Your task to perform on an android device: Clear the shopping cart on walmart.com. Search for razer huntsman on walmart.com, select the first entry, and add it to the cart. Image 0: 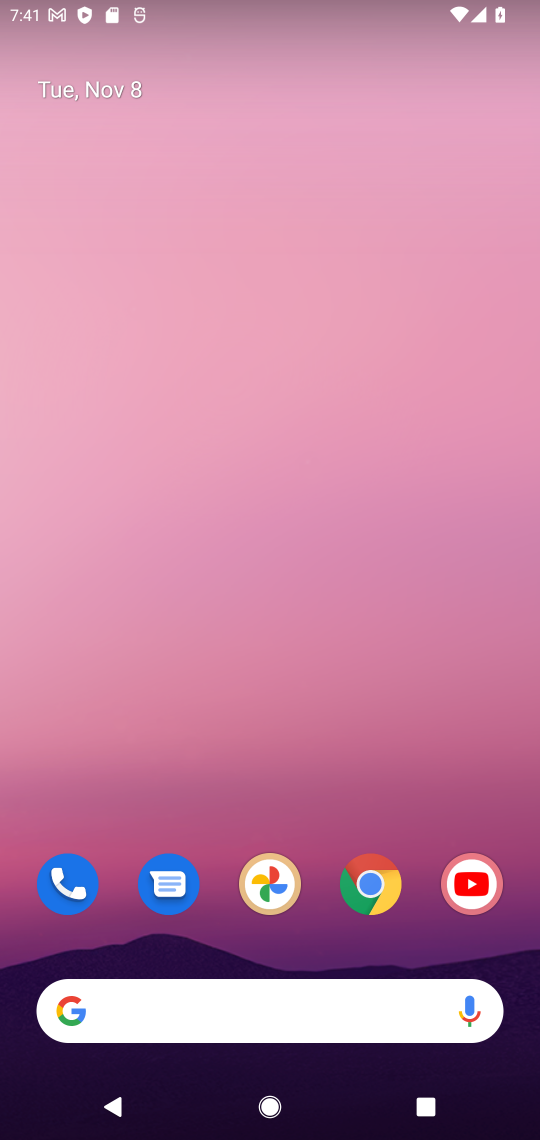
Step 0: drag from (309, 1046) to (304, 22)
Your task to perform on an android device: Clear the shopping cart on walmart.com. Search for razer huntsman on walmart.com, select the first entry, and add it to the cart. Image 1: 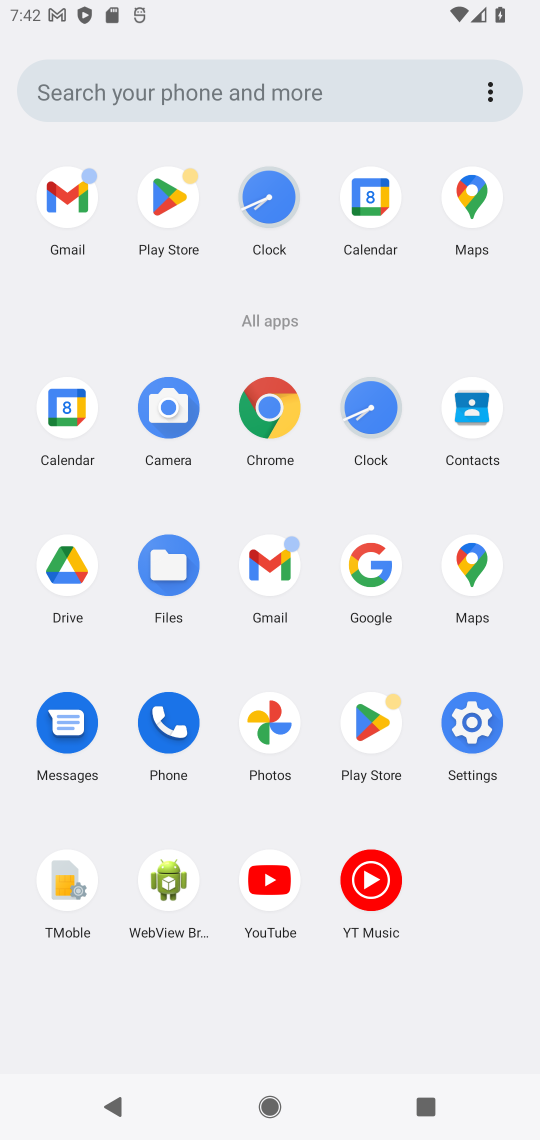
Step 1: click (363, 578)
Your task to perform on an android device: Clear the shopping cart on walmart.com. Search for razer huntsman on walmart.com, select the first entry, and add it to the cart. Image 2: 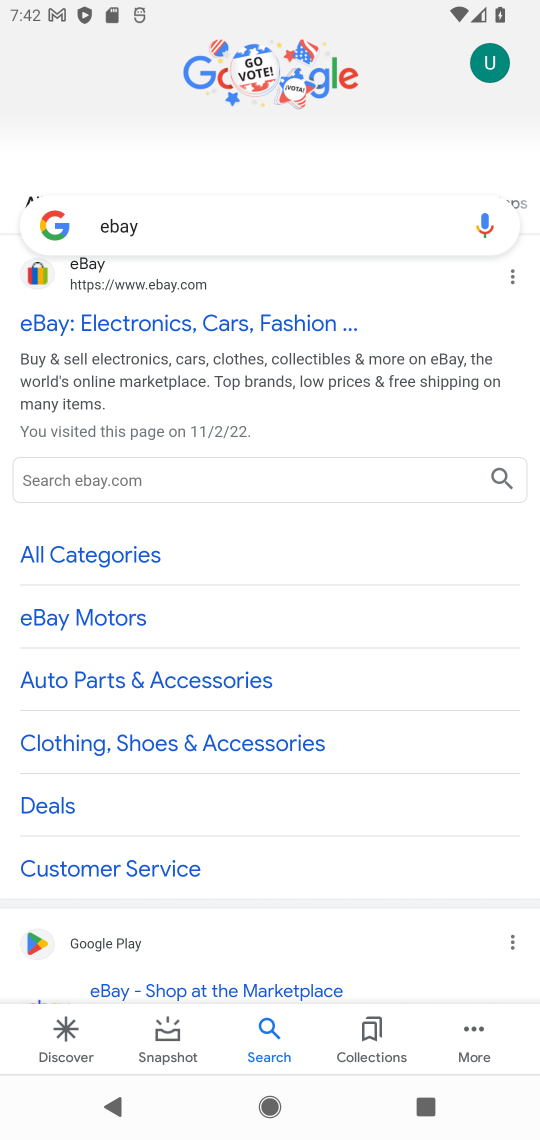
Step 2: click (298, 225)
Your task to perform on an android device: Clear the shopping cart on walmart.com. Search for razer huntsman on walmart.com, select the first entry, and add it to the cart. Image 3: 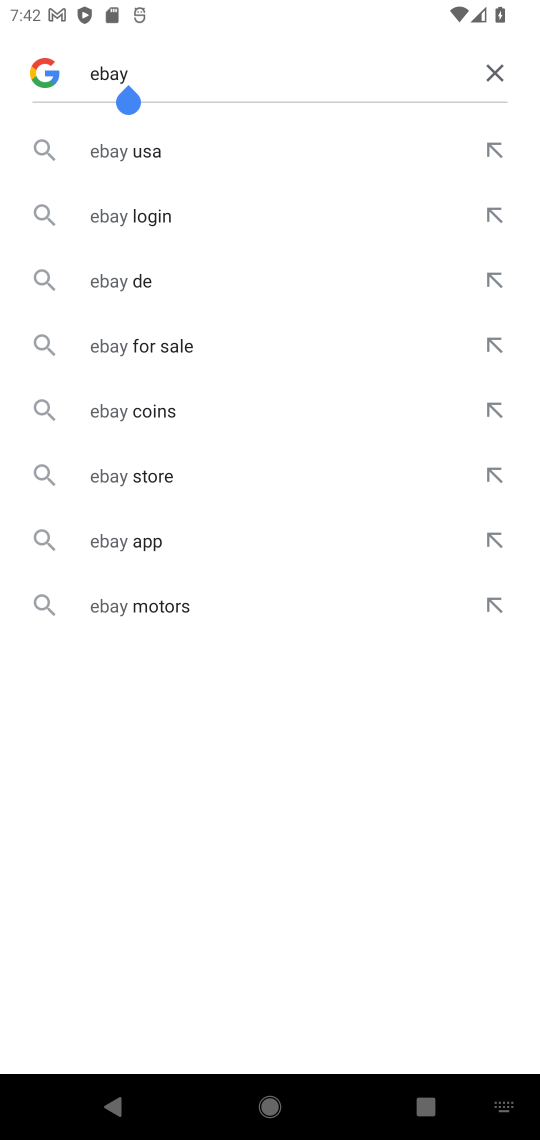
Step 3: click (494, 91)
Your task to perform on an android device: Clear the shopping cart on walmart.com. Search for razer huntsman on walmart.com, select the first entry, and add it to the cart. Image 4: 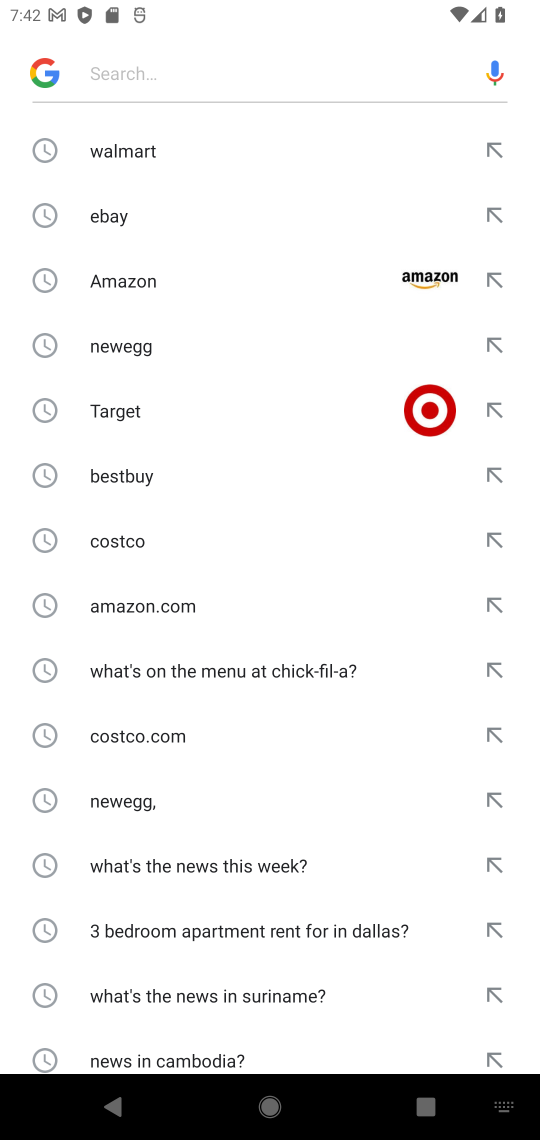
Step 4: click (236, 156)
Your task to perform on an android device: Clear the shopping cart on walmart.com. Search for razer huntsman on walmart.com, select the first entry, and add it to the cart. Image 5: 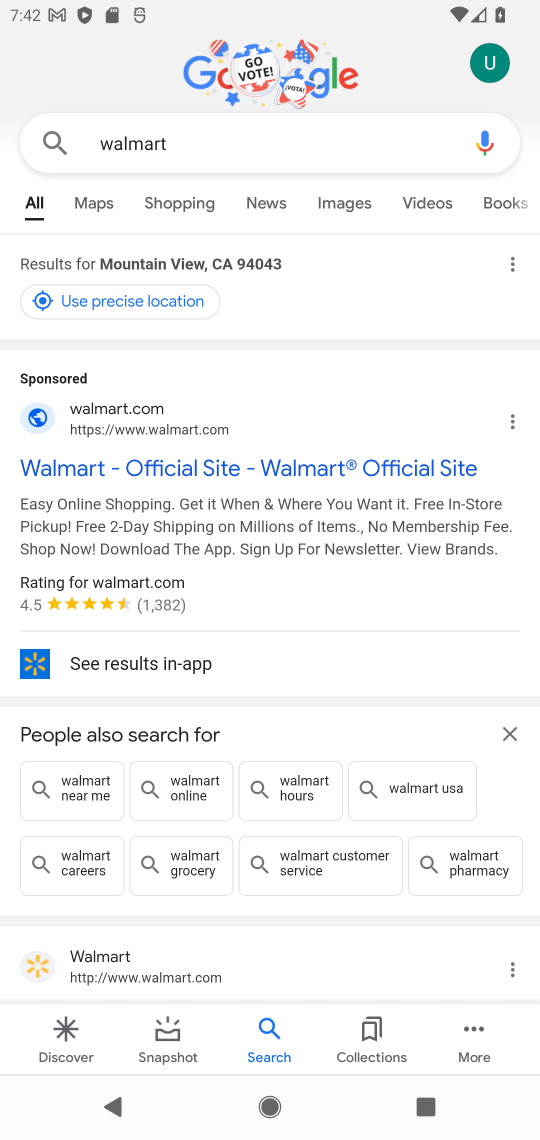
Step 5: click (163, 458)
Your task to perform on an android device: Clear the shopping cart on walmart.com. Search for razer huntsman on walmart.com, select the first entry, and add it to the cart. Image 6: 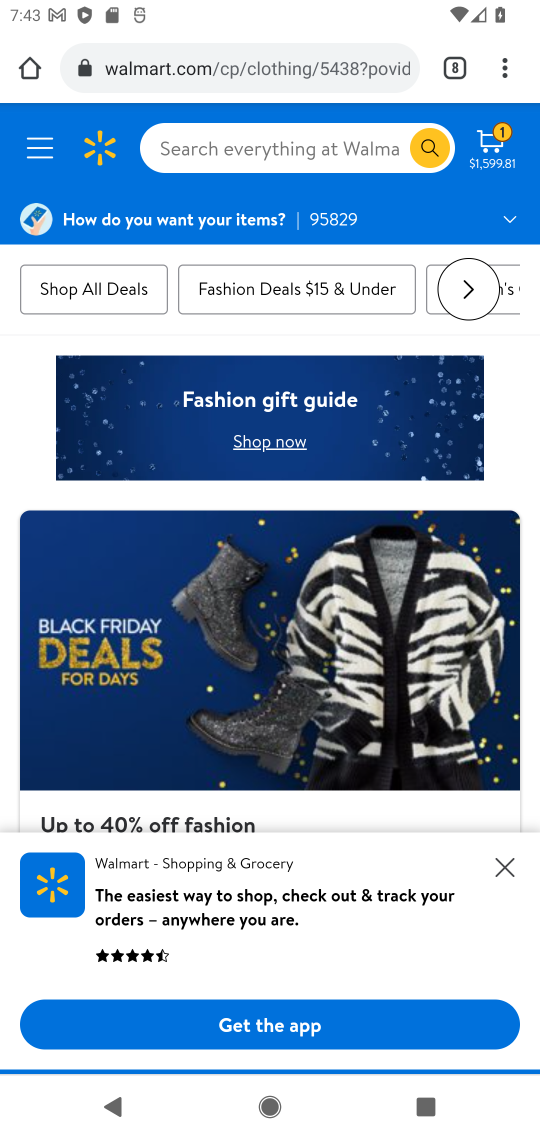
Step 6: click (206, 144)
Your task to perform on an android device: Clear the shopping cart on walmart.com. Search for razer huntsman on walmart.com, select the first entry, and add it to the cart. Image 7: 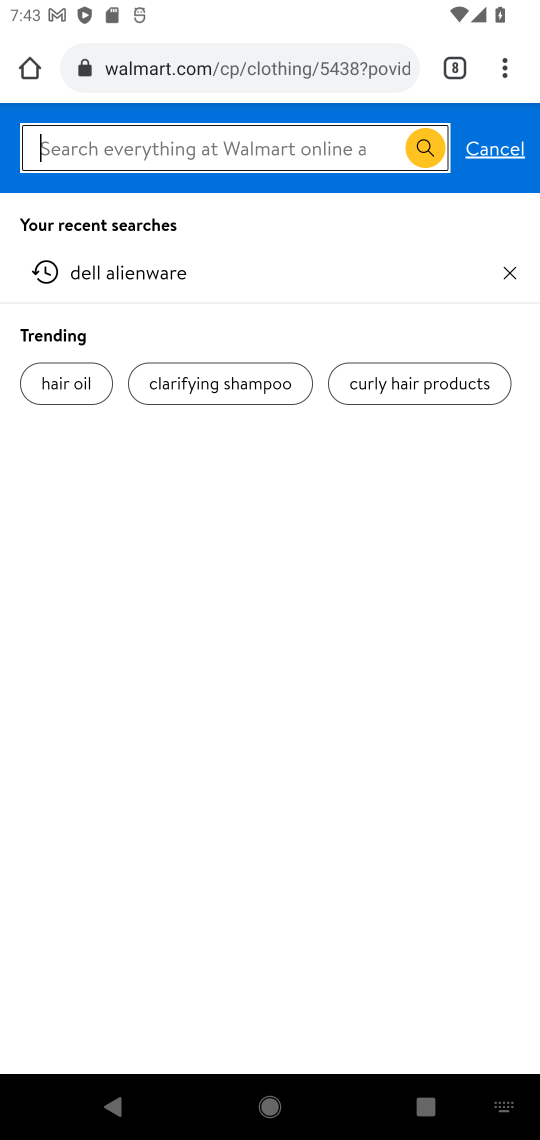
Step 7: click (487, 152)
Your task to perform on an android device: Clear the shopping cart on walmart.com. Search for razer huntsman on walmart.com, select the first entry, and add it to the cart. Image 8: 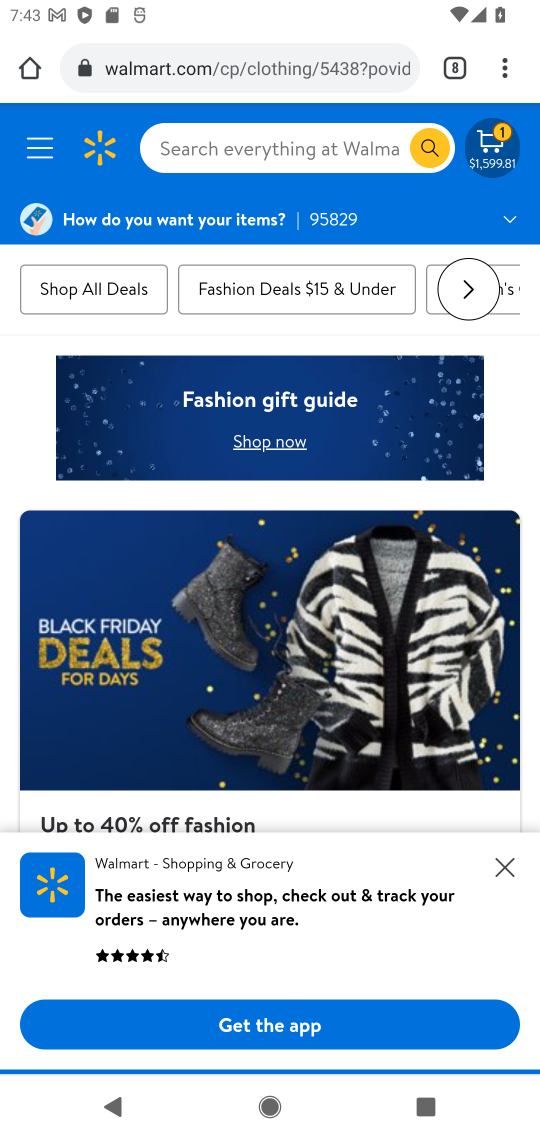
Step 8: click (487, 152)
Your task to perform on an android device: Clear the shopping cart on walmart.com. Search for razer huntsman on walmart.com, select the first entry, and add it to the cart. Image 9: 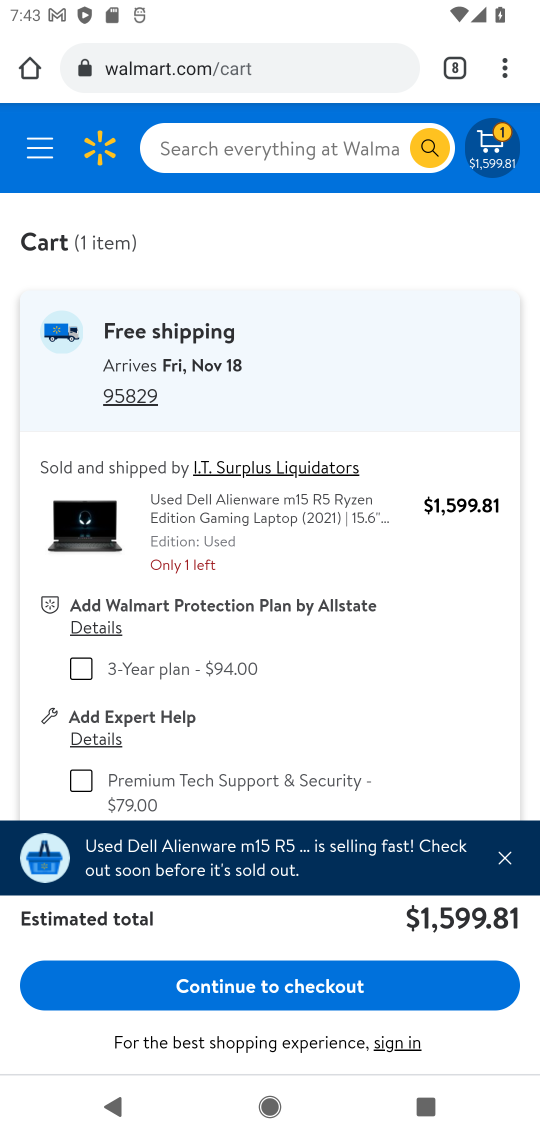
Step 9: drag from (446, 672) to (434, 311)
Your task to perform on an android device: Clear the shopping cart on walmart.com. Search for razer huntsman on walmart.com, select the first entry, and add it to the cart. Image 10: 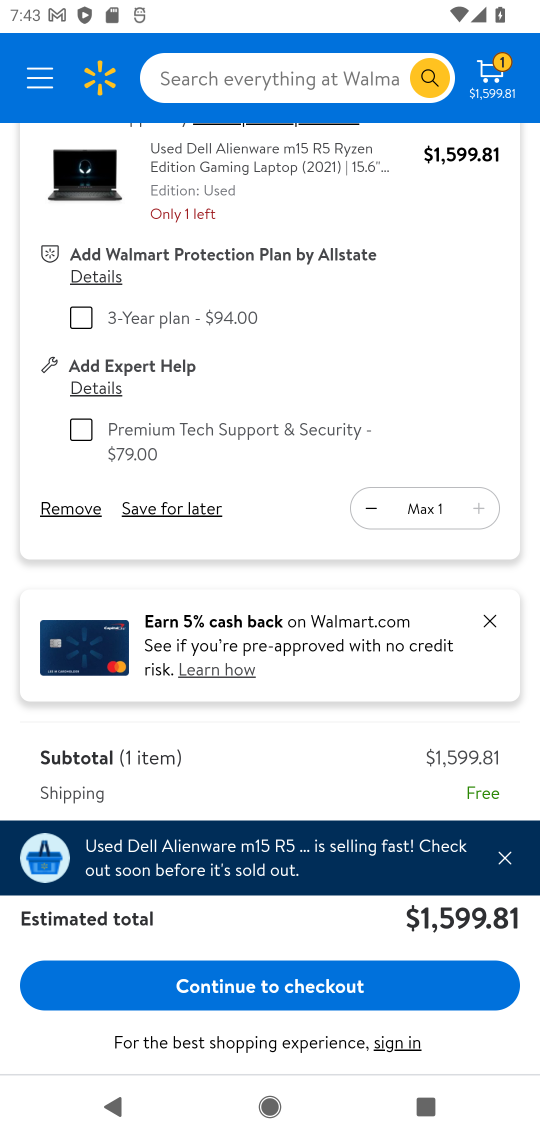
Step 10: drag from (391, 694) to (348, 180)
Your task to perform on an android device: Clear the shopping cart on walmart.com. Search for razer huntsman on walmart.com, select the first entry, and add it to the cart. Image 11: 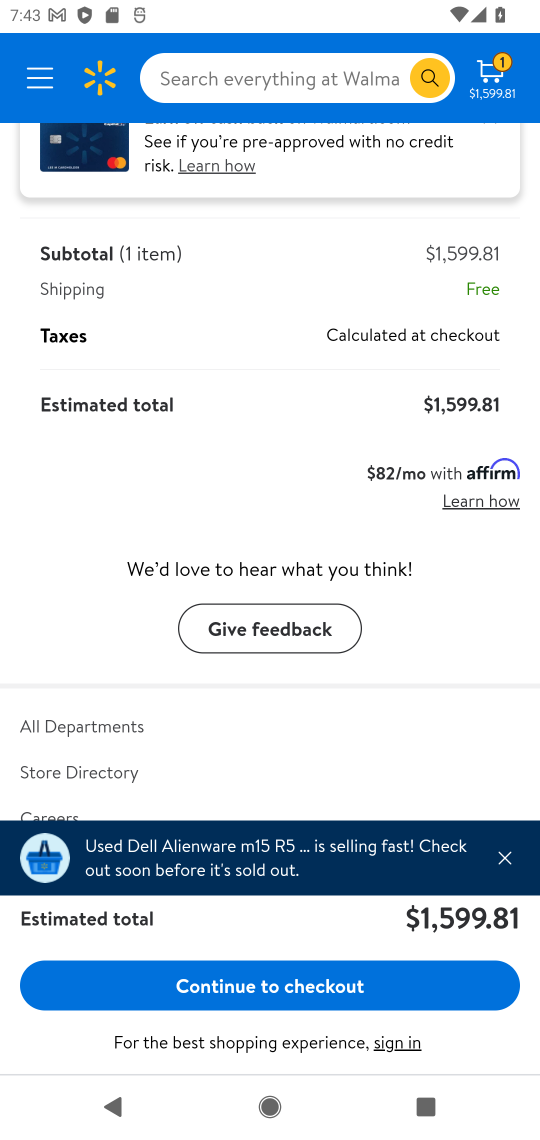
Step 11: drag from (430, 675) to (329, 338)
Your task to perform on an android device: Clear the shopping cart on walmart.com. Search for razer huntsman on walmart.com, select the first entry, and add it to the cart. Image 12: 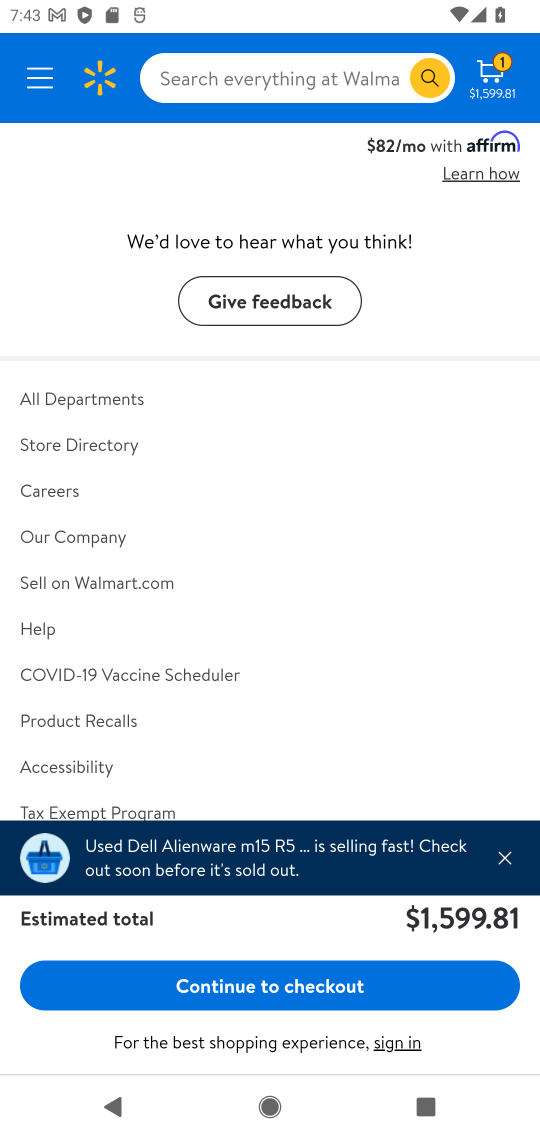
Step 12: drag from (441, 291) to (452, 692)
Your task to perform on an android device: Clear the shopping cart on walmart.com. Search for razer huntsman on walmart.com, select the first entry, and add it to the cart. Image 13: 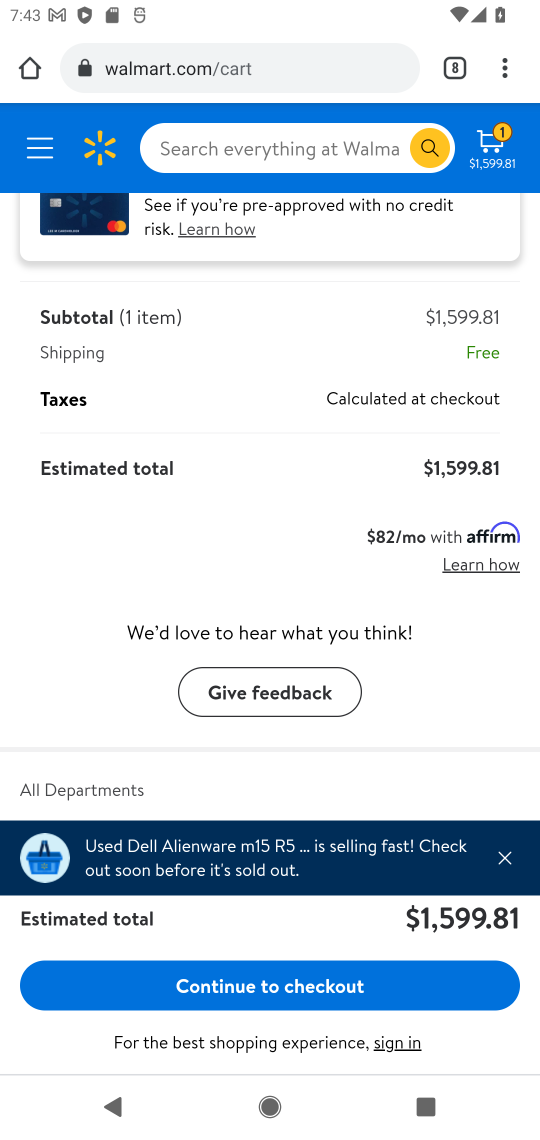
Step 13: drag from (406, 529) to (498, 898)
Your task to perform on an android device: Clear the shopping cart on walmart.com. Search for razer huntsman on walmart.com, select the first entry, and add it to the cart. Image 14: 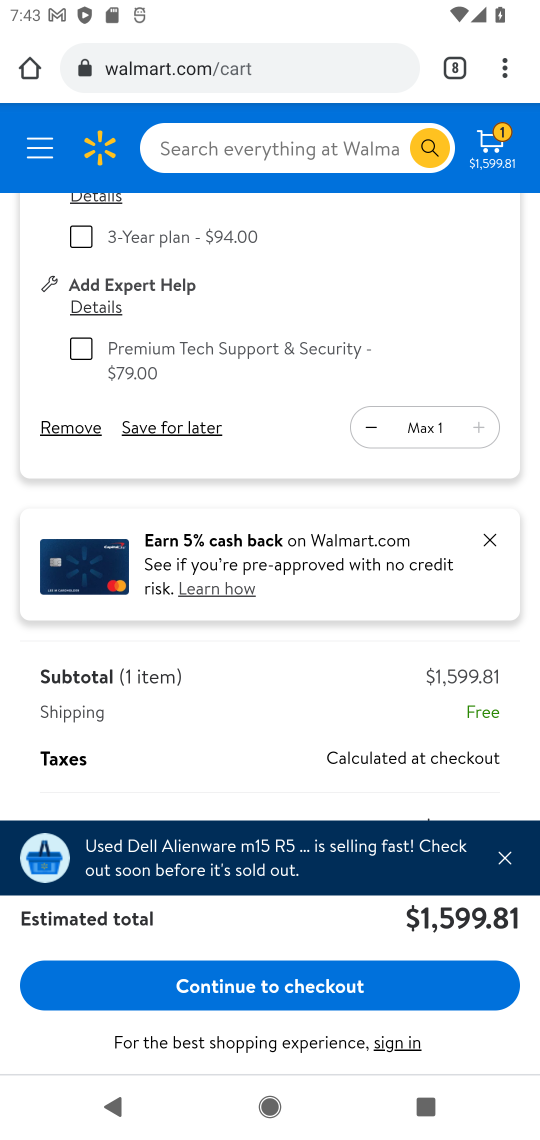
Step 14: click (374, 439)
Your task to perform on an android device: Clear the shopping cart on walmart.com. Search for razer huntsman on walmart.com, select the first entry, and add it to the cart. Image 15: 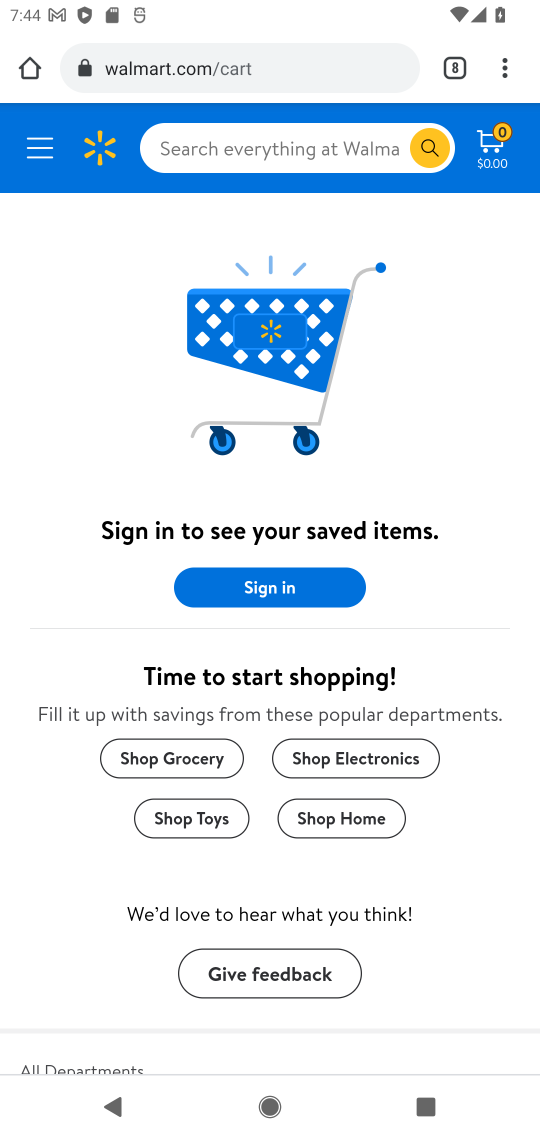
Step 15: click (325, 159)
Your task to perform on an android device: Clear the shopping cart on walmart.com. Search for razer huntsman on walmart.com, select the first entry, and add it to the cart. Image 16: 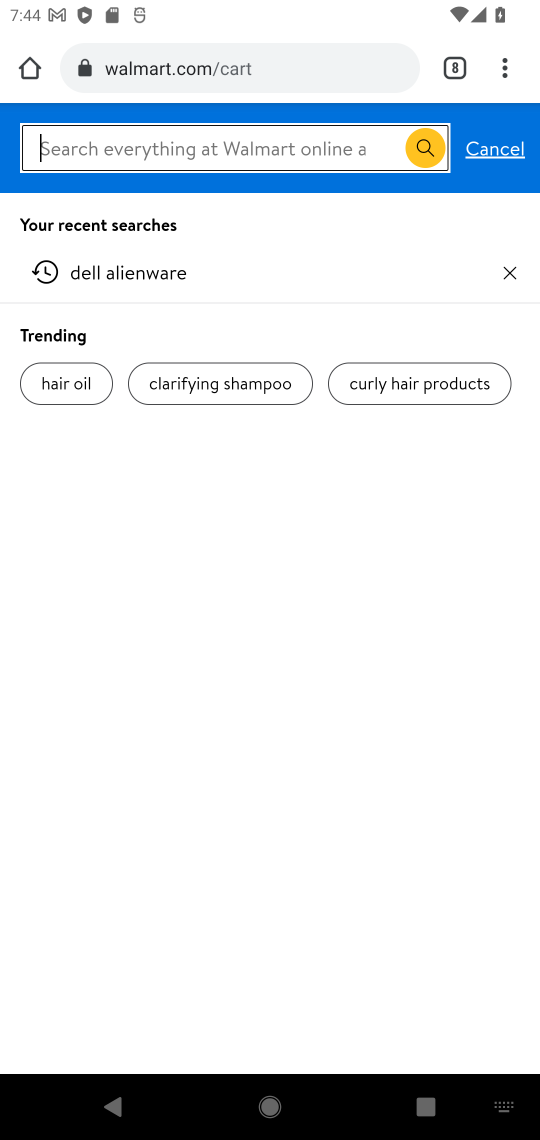
Step 16: type "razer huntsman"
Your task to perform on an android device: Clear the shopping cart on walmart.com. Search for razer huntsman on walmart.com, select the first entry, and add it to the cart. Image 17: 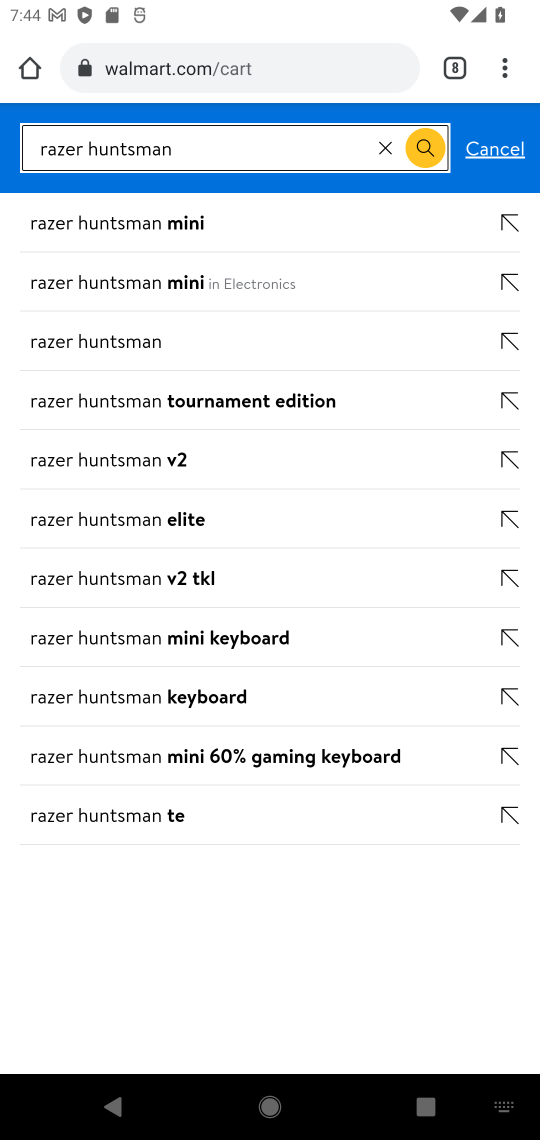
Step 17: click (221, 361)
Your task to perform on an android device: Clear the shopping cart on walmart.com. Search for razer huntsman on walmart.com, select the first entry, and add it to the cart. Image 18: 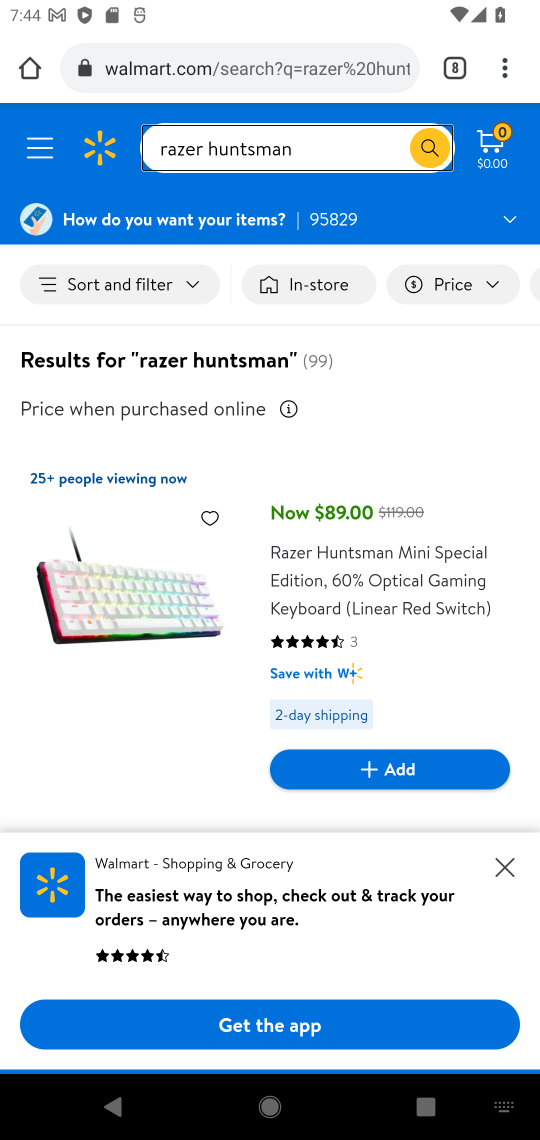
Step 18: click (431, 777)
Your task to perform on an android device: Clear the shopping cart on walmart.com. Search for razer huntsman on walmart.com, select the first entry, and add it to the cart. Image 19: 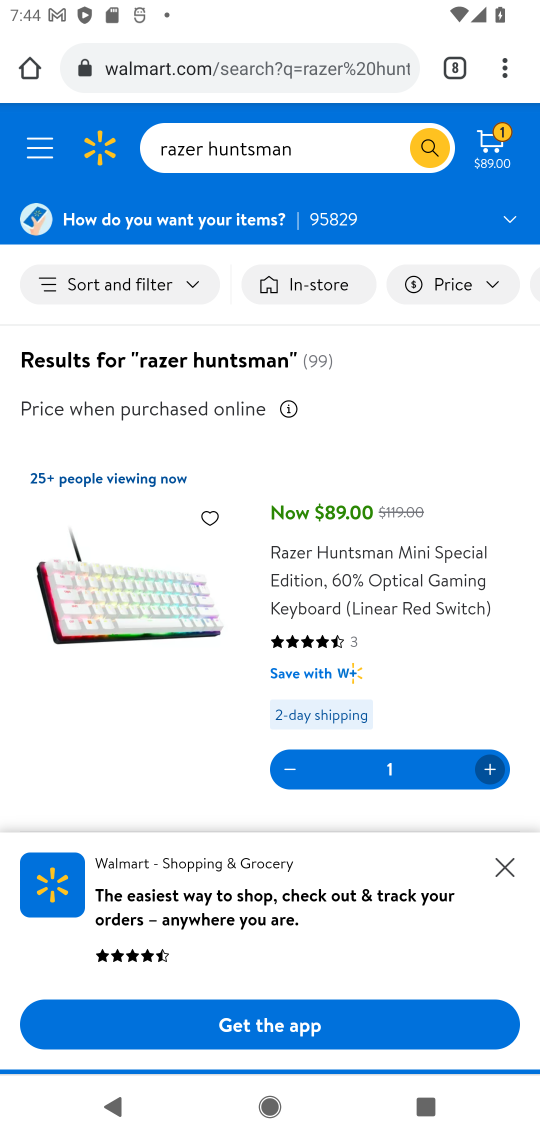
Step 19: task complete